Your task to perform on an android device: change the clock style Image 0: 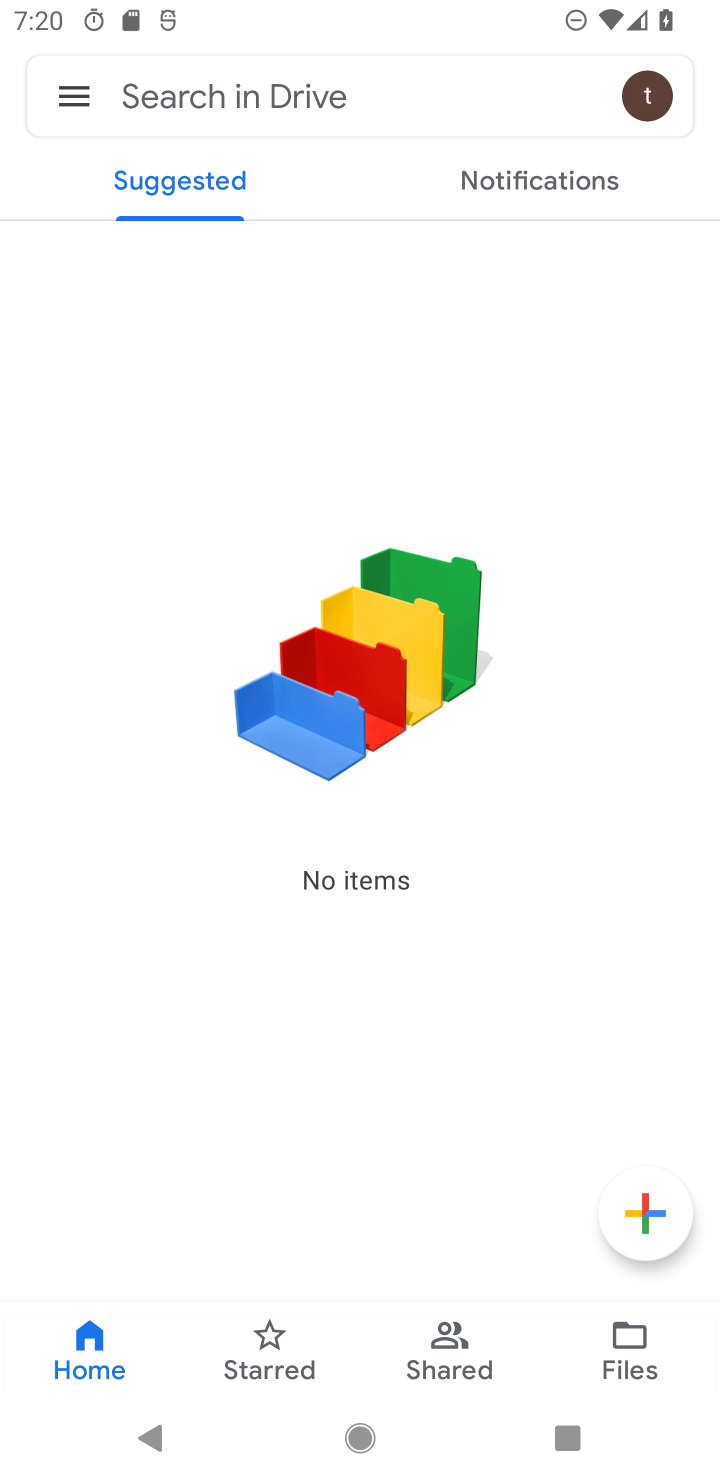
Step 0: press home button
Your task to perform on an android device: change the clock style Image 1: 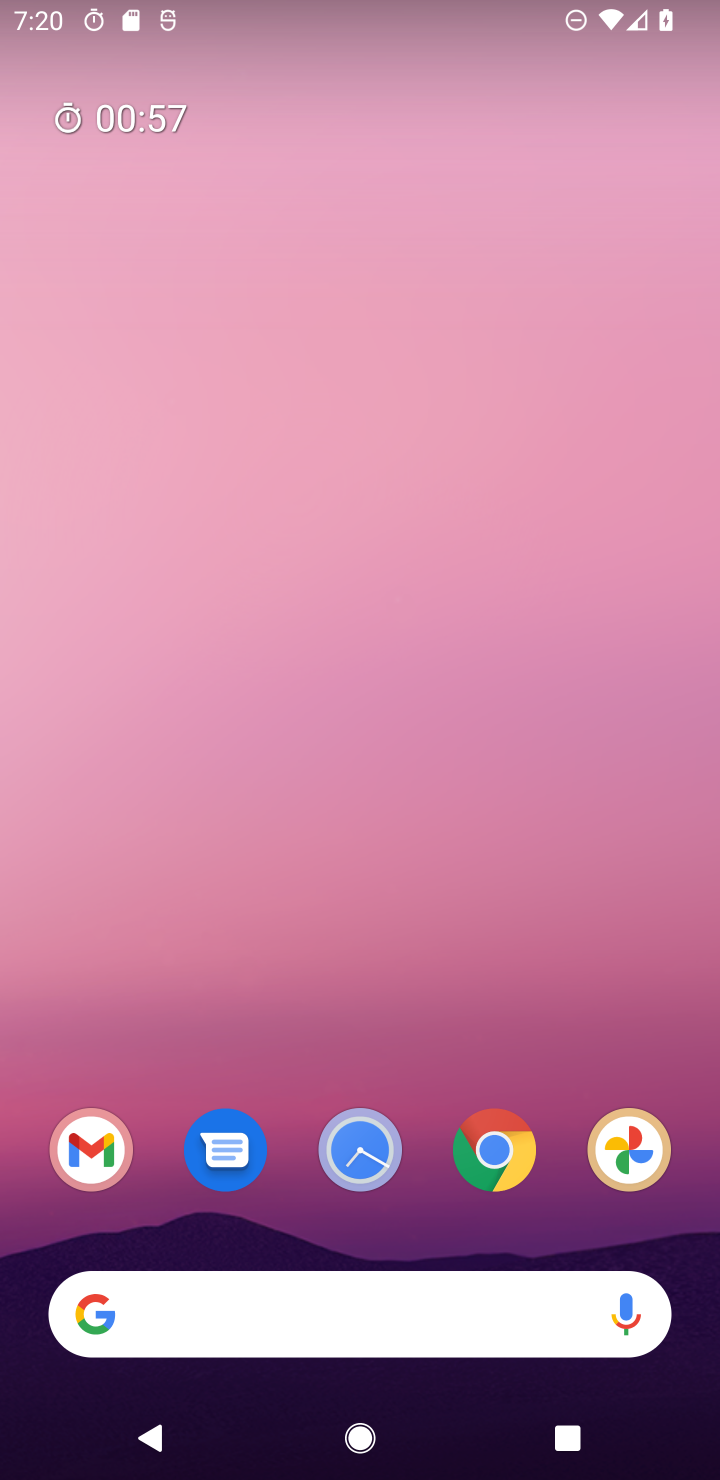
Step 1: drag from (360, 1142) to (579, 62)
Your task to perform on an android device: change the clock style Image 2: 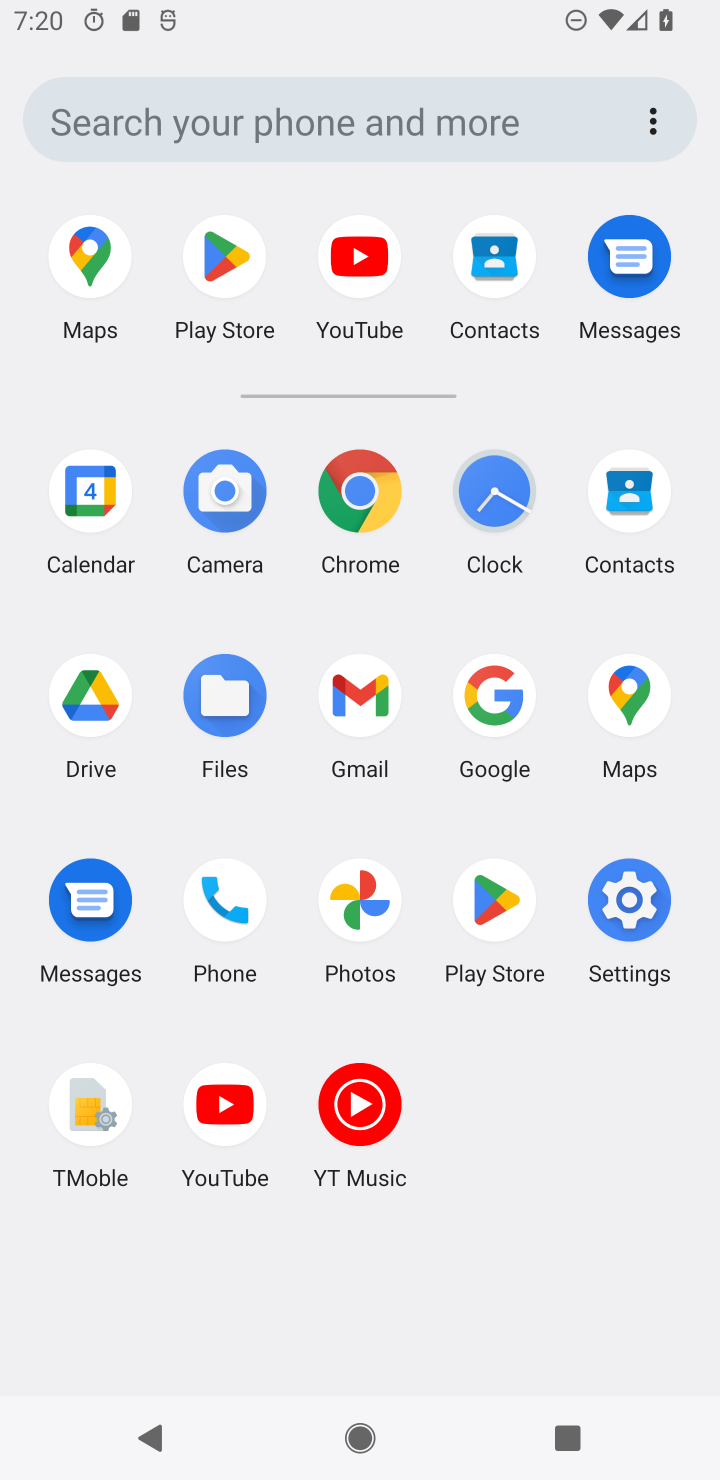
Step 2: click (505, 479)
Your task to perform on an android device: change the clock style Image 3: 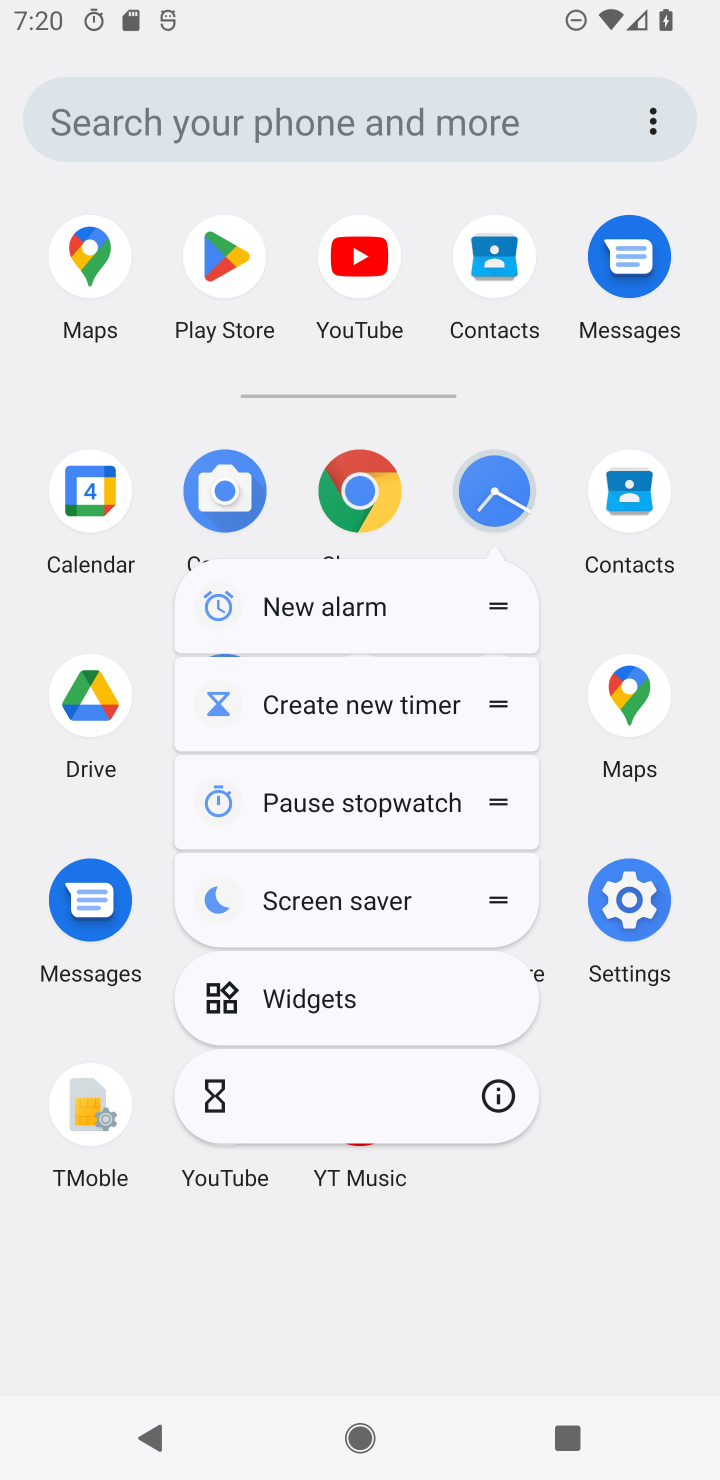
Step 3: click (474, 490)
Your task to perform on an android device: change the clock style Image 4: 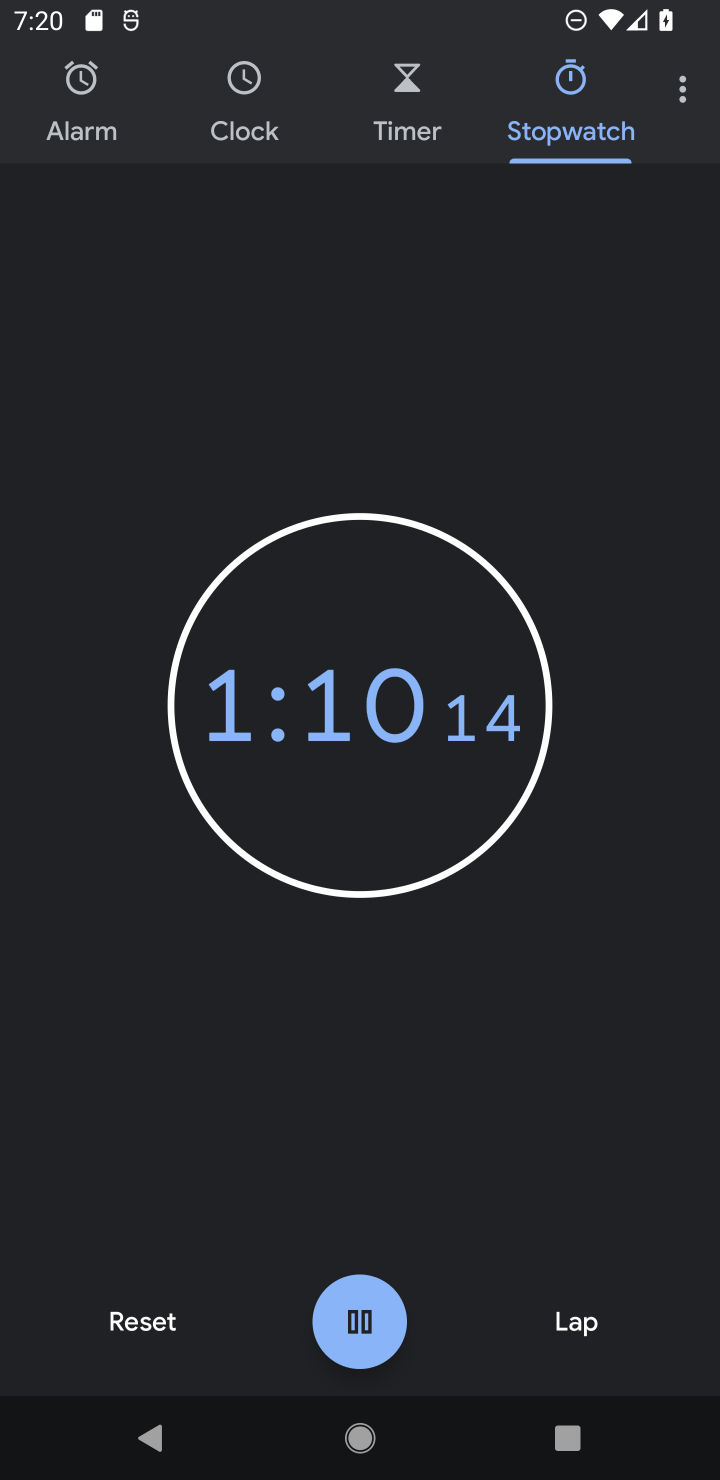
Step 4: click (685, 83)
Your task to perform on an android device: change the clock style Image 5: 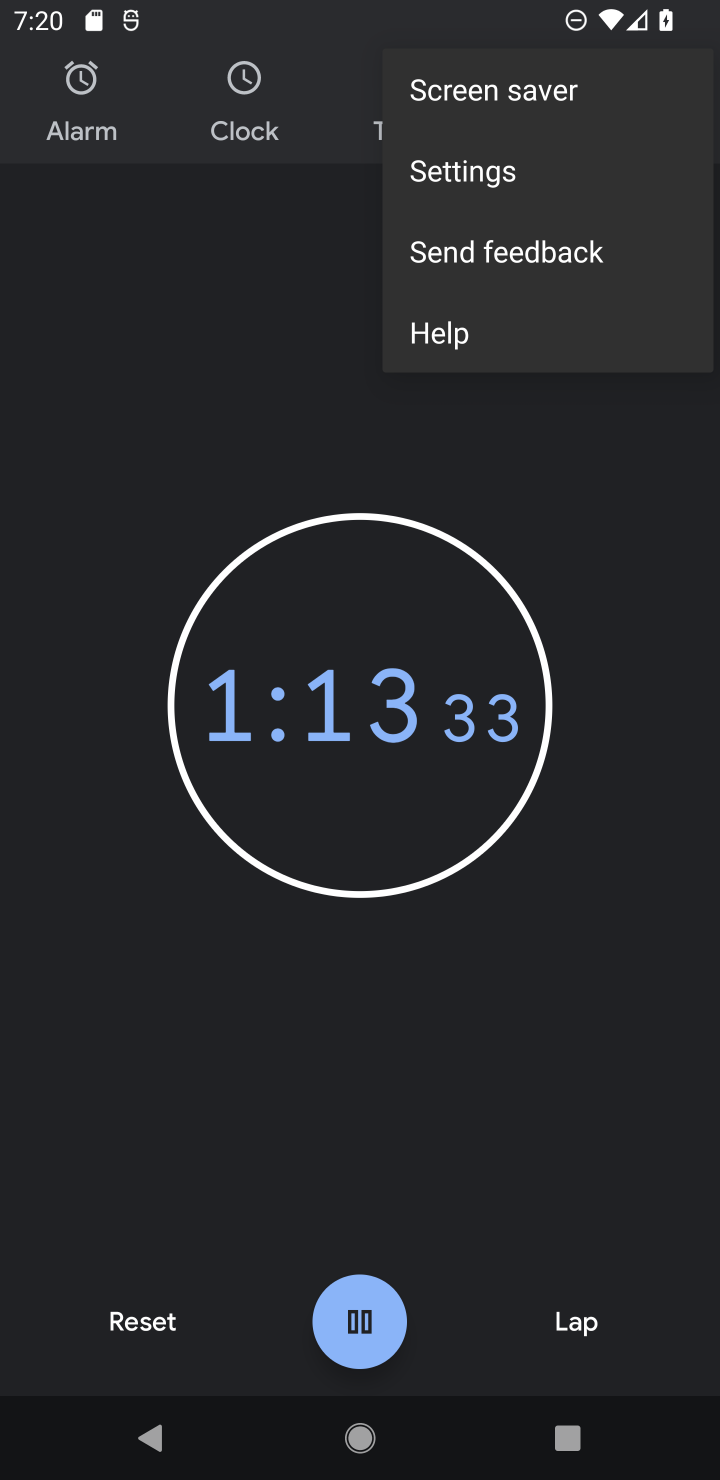
Step 5: click (507, 174)
Your task to perform on an android device: change the clock style Image 6: 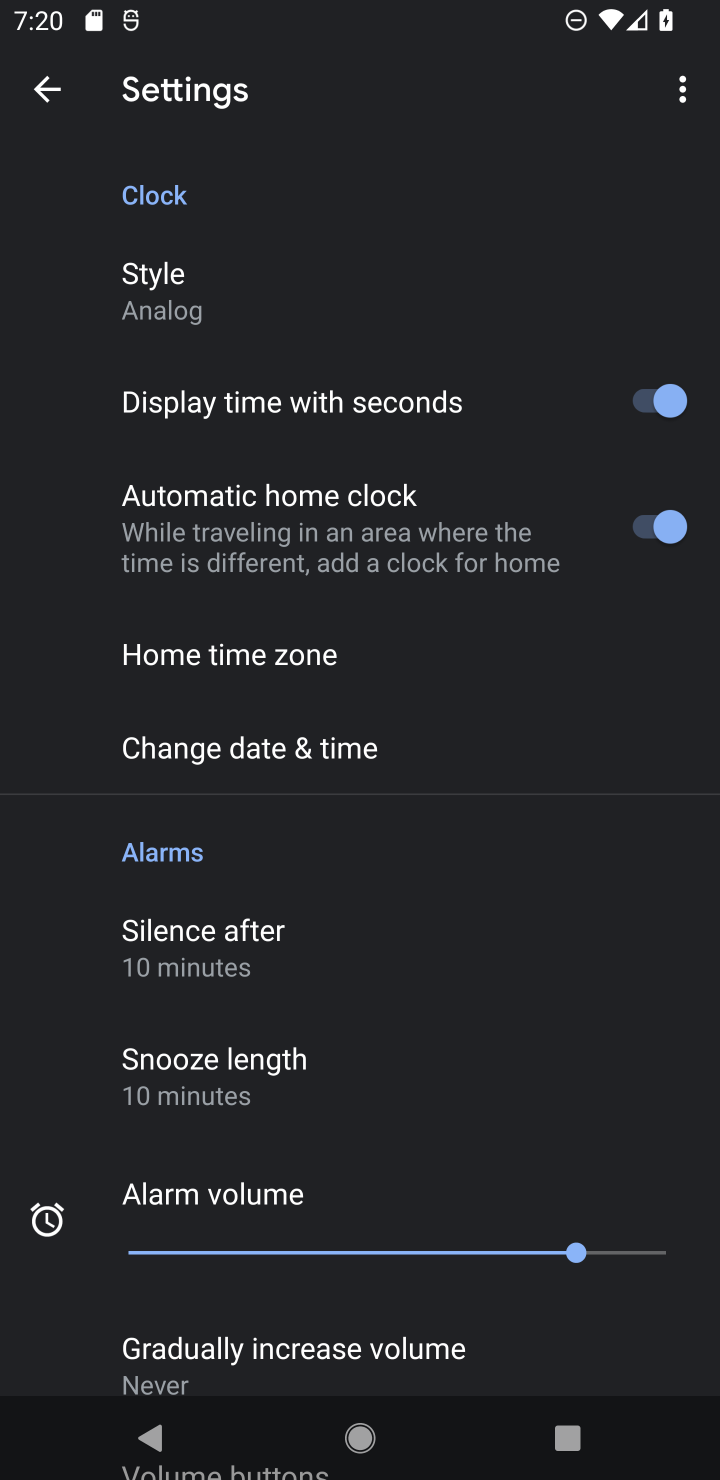
Step 6: click (198, 279)
Your task to perform on an android device: change the clock style Image 7: 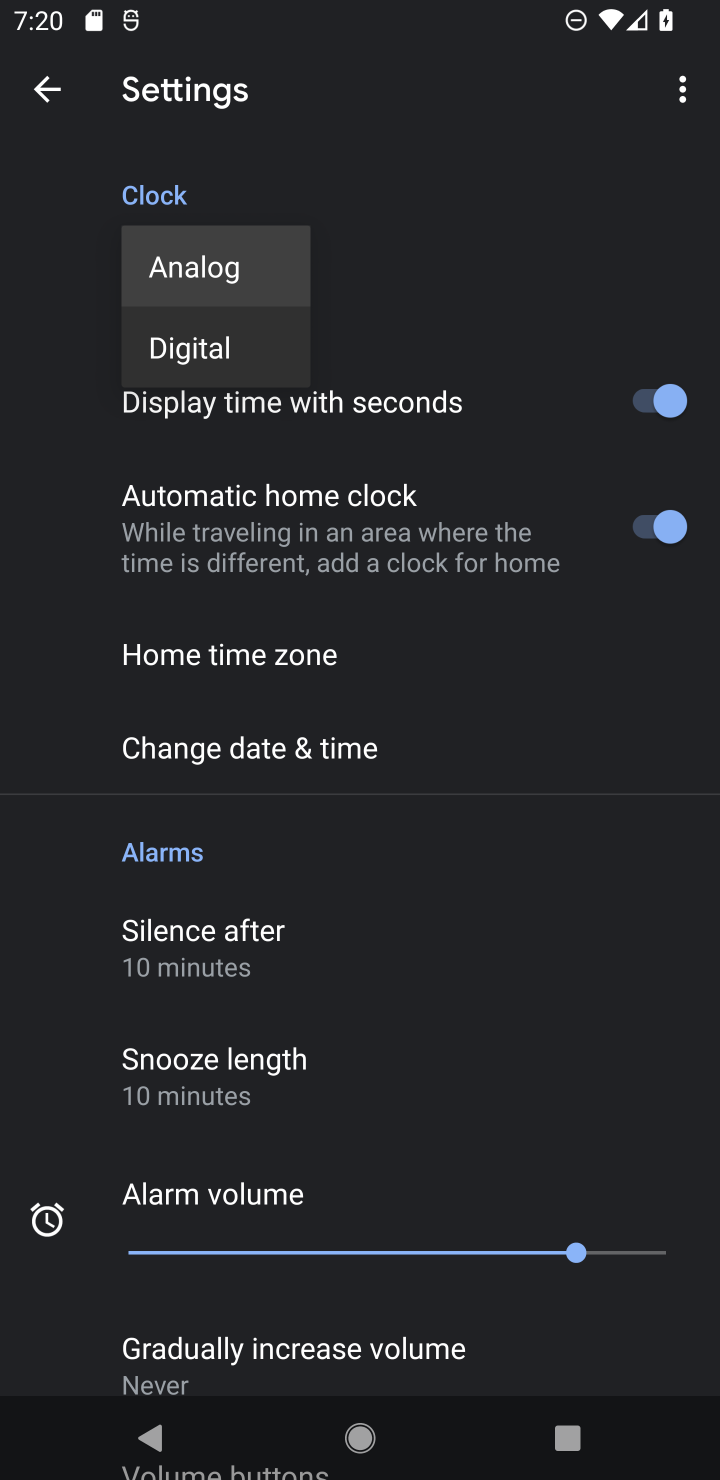
Step 7: click (159, 329)
Your task to perform on an android device: change the clock style Image 8: 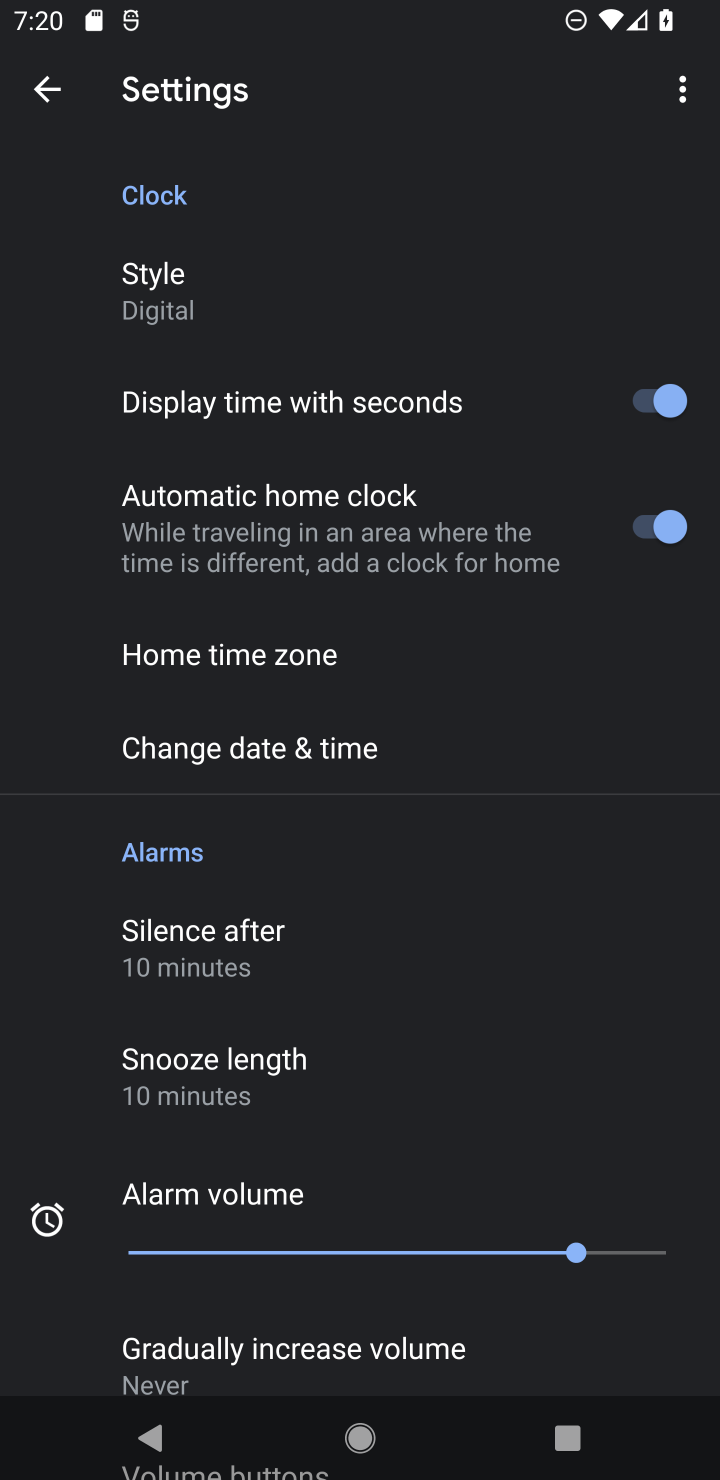
Step 8: task complete